Your task to perform on an android device: set default search engine in the chrome app Image 0: 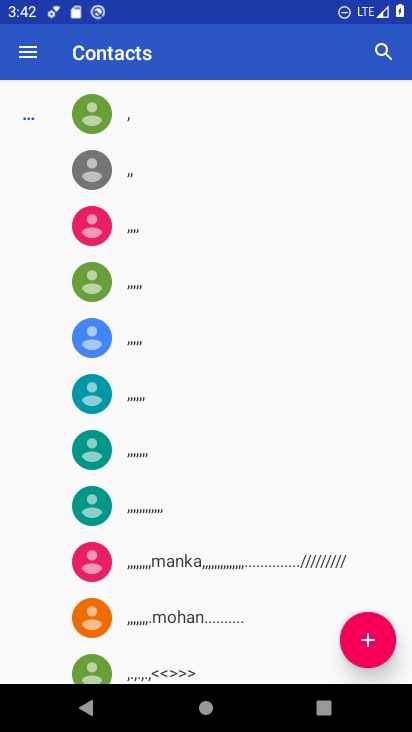
Step 0: press home button
Your task to perform on an android device: set default search engine in the chrome app Image 1: 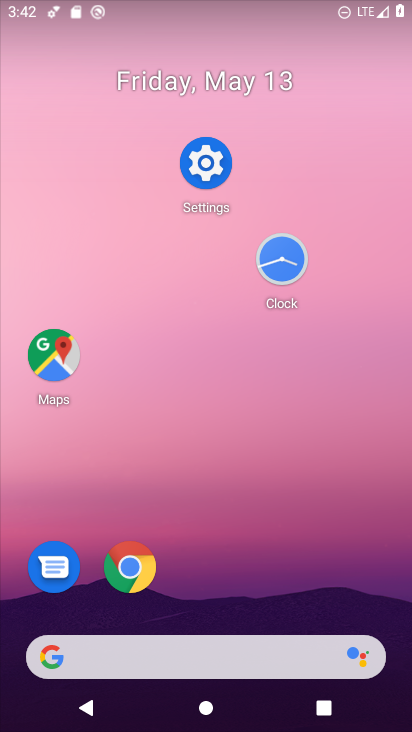
Step 1: click (142, 568)
Your task to perform on an android device: set default search engine in the chrome app Image 2: 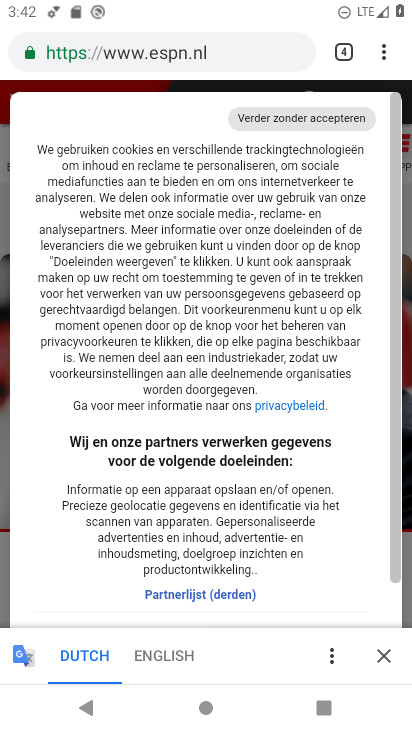
Step 2: click (378, 651)
Your task to perform on an android device: set default search engine in the chrome app Image 3: 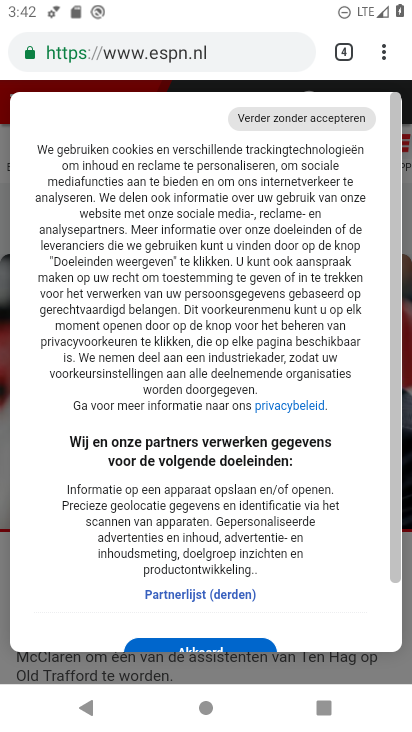
Step 3: click (381, 50)
Your task to perform on an android device: set default search engine in the chrome app Image 4: 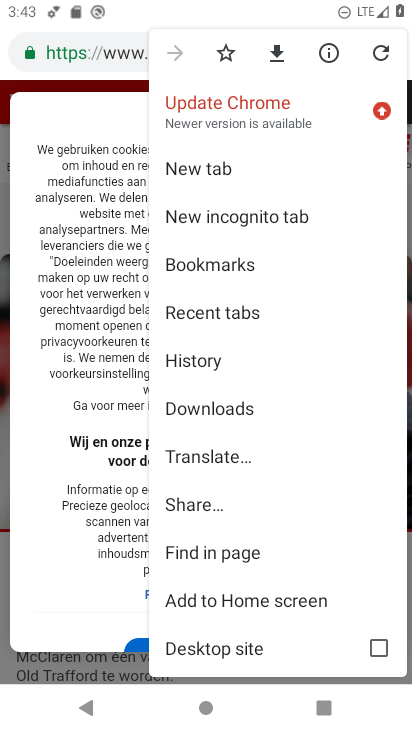
Step 4: drag from (208, 619) to (213, 419)
Your task to perform on an android device: set default search engine in the chrome app Image 5: 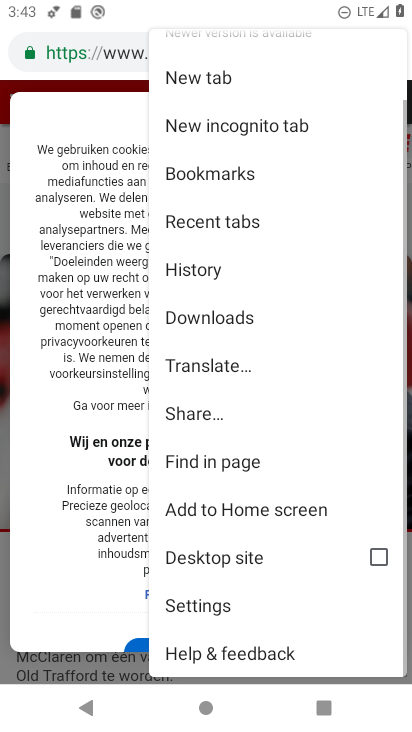
Step 5: click (227, 594)
Your task to perform on an android device: set default search engine in the chrome app Image 6: 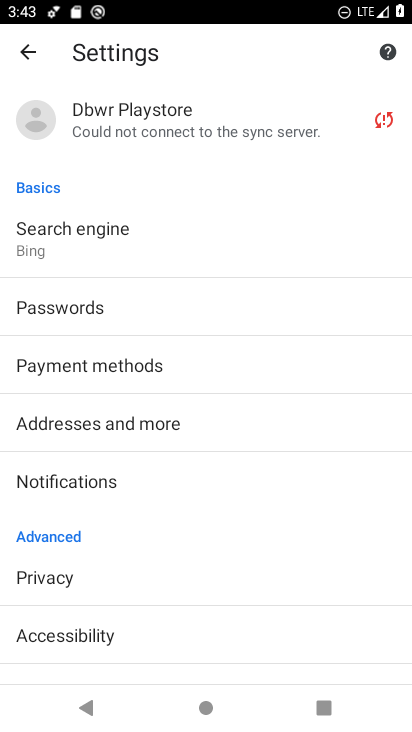
Step 6: click (162, 248)
Your task to perform on an android device: set default search engine in the chrome app Image 7: 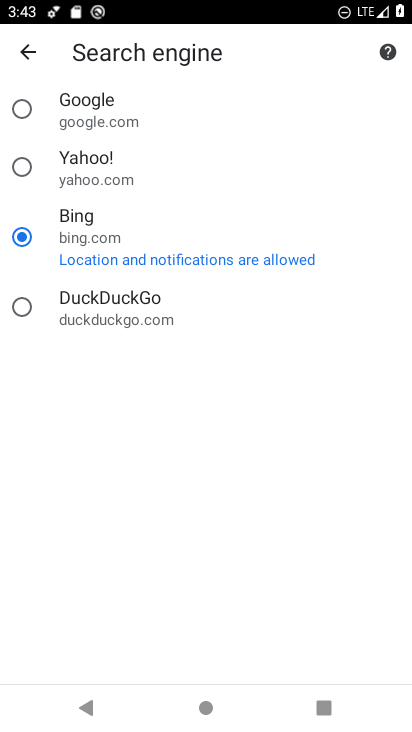
Step 7: click (162, 248)
Your task to perform on an android device: set default search engine in the chrome app Image 8: 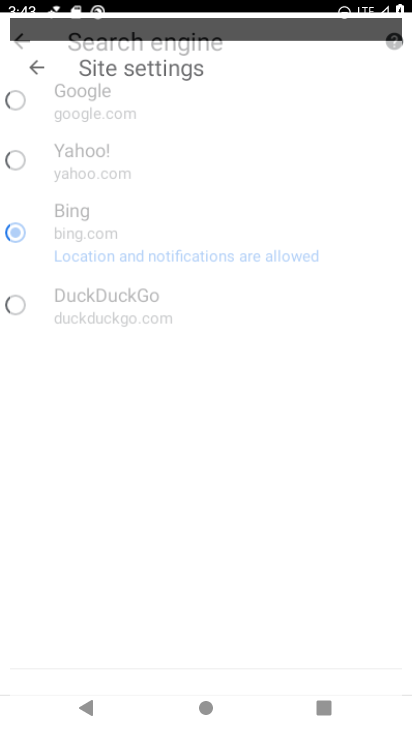
Step 8: click (101, 166)
Your task to perform on an android device: set default search engine in the chrome app Image 9: 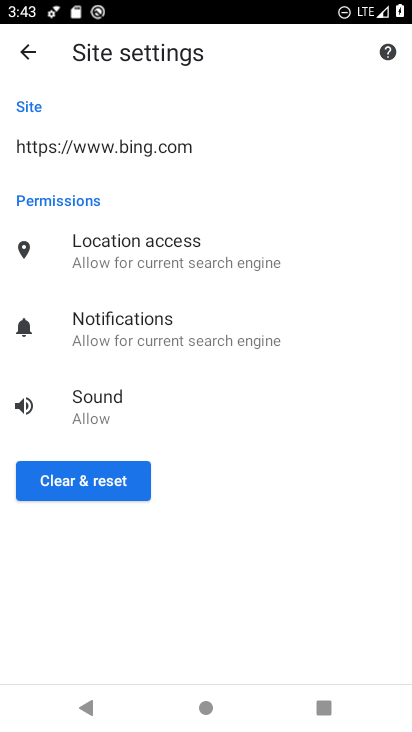
Step 9: task complete